Your task to perform on an android device: Search for pizza restaurants on Maps Image 0: 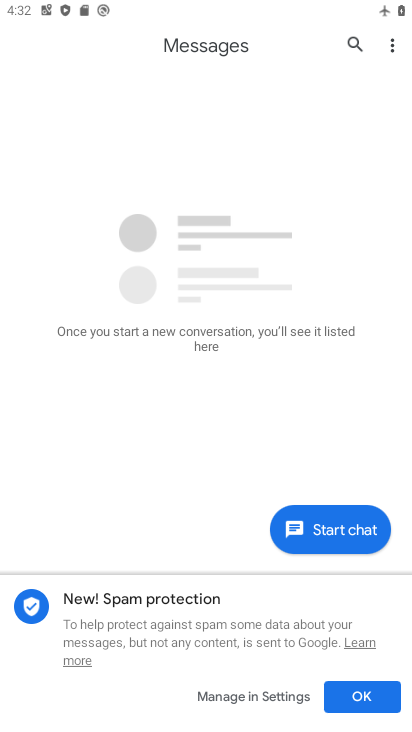
Step 0: press home button
Your task to perform on an android device: Search for pizza restaurants on Maps Image 1: 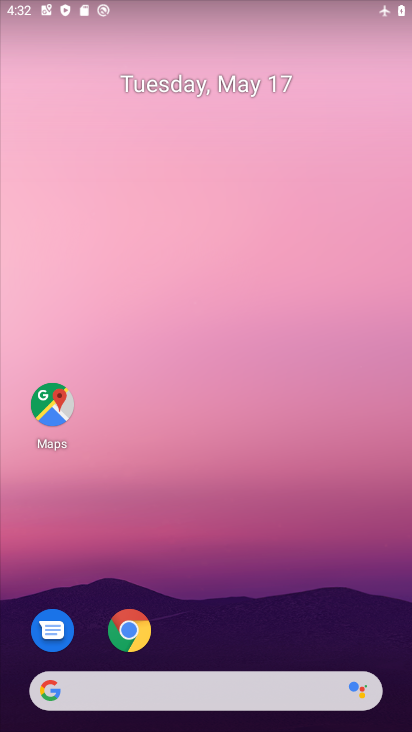
Step 1: click (210, 201)
Your task to perform on an android device: Search for pizza restaurants on Maps Image 2: 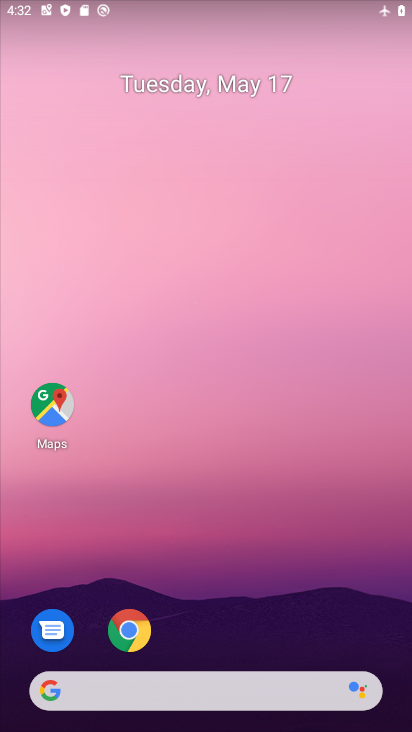
Step 2: drag from (231, 725) to (230, 194)
Your task to perform on an android device: Search for pizza restaurants on Maps Image 3: 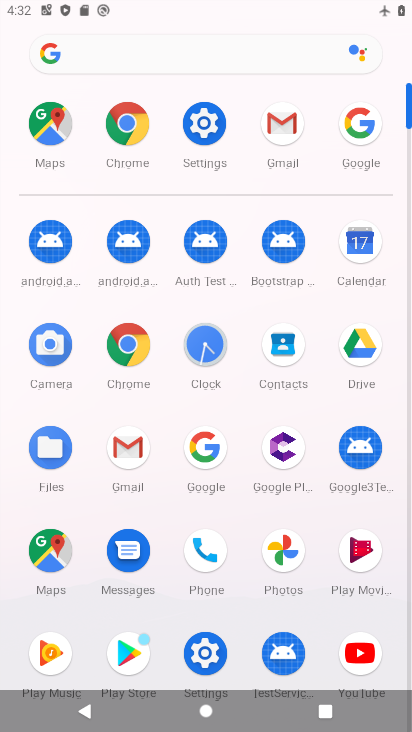
Step 3: click (47, 554)
Your task to perform on an android device: Search for pizza restaurants on Maps Image 4: 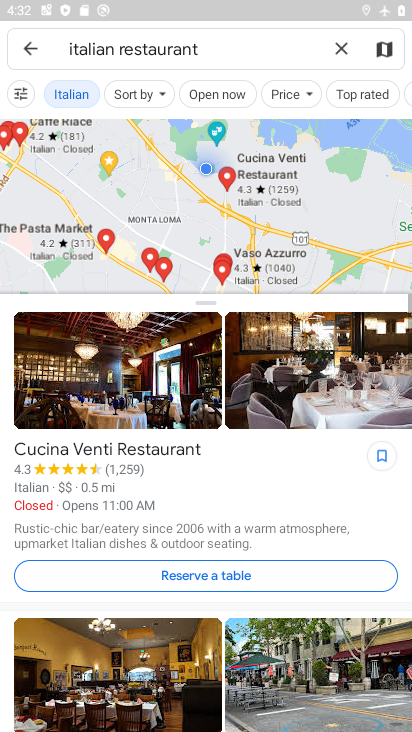
Step 4: click (337, 49)
Your task to perform on an android device: Search for pizza restaurants on Maps Image 5: 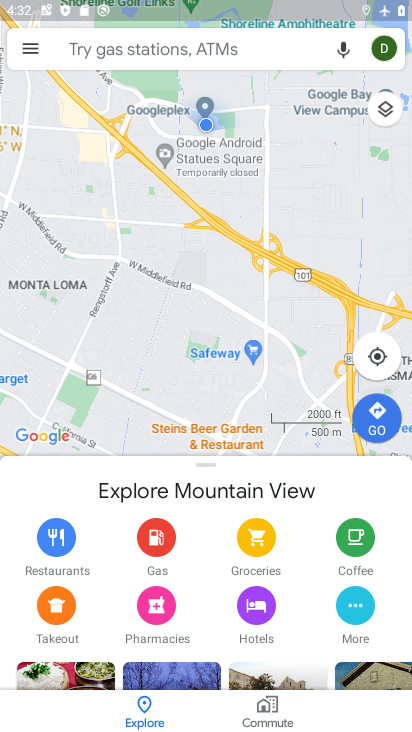
Step 5: click (138, 49)
Your task to perform on an android device: Search for pizza restaurants on Maps Image 6: 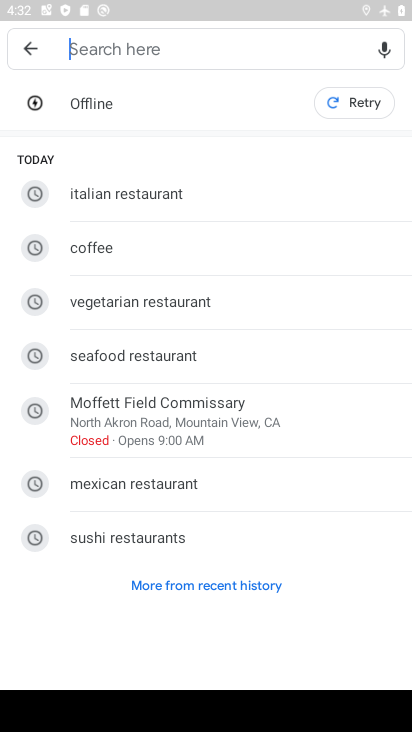
Step 6: type "Pizza restaurants"
Your task to perform on an android device: Search for pizza restaurants on Maps Image 7: 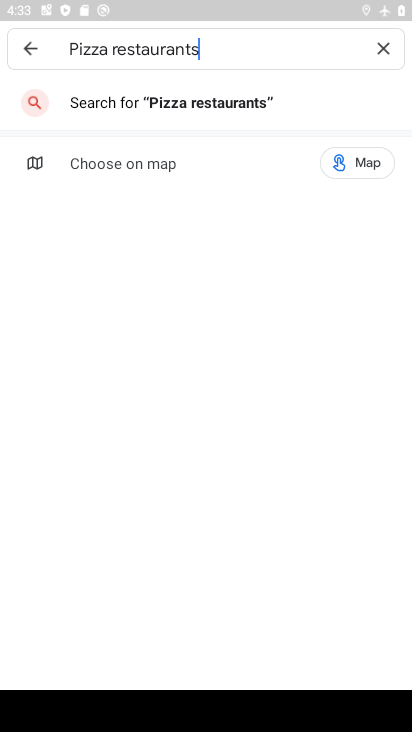
Step 7: task complete